Your task to perform on an android device: Open maps Image 0: 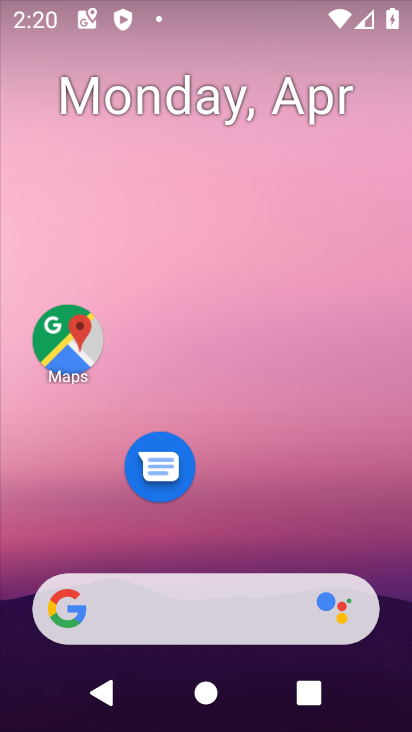
Step 0: drag from (294, 187) to (294, 58)
Your task to perform on an android device: Open maps Image 1: 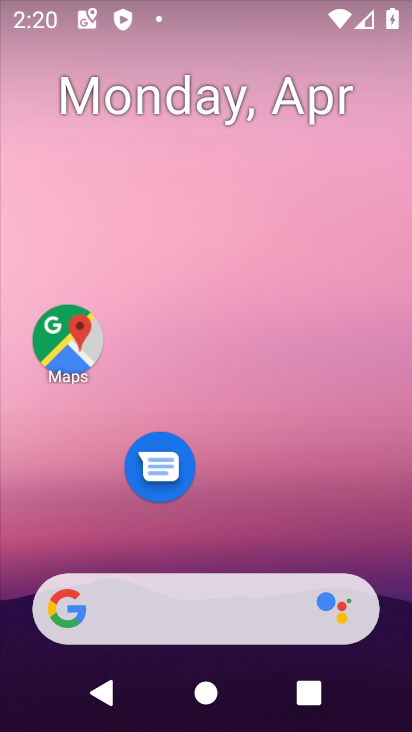
Step 1: drag from (244, 541) to (244, 28)
Your task to perform on an android device: Open maps Image 2: 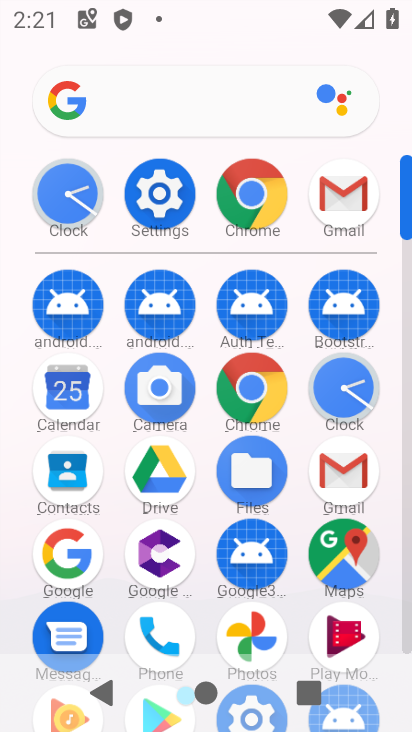
Step 2: click (370, 541)
Your task to perform on an android device: Open maps Image 3: 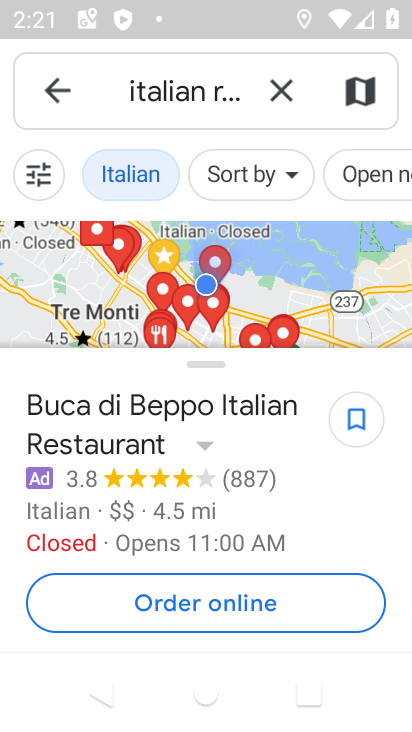
Step 3: click (56, 98)
Your task to perform on an android device: Open maps Image 4: 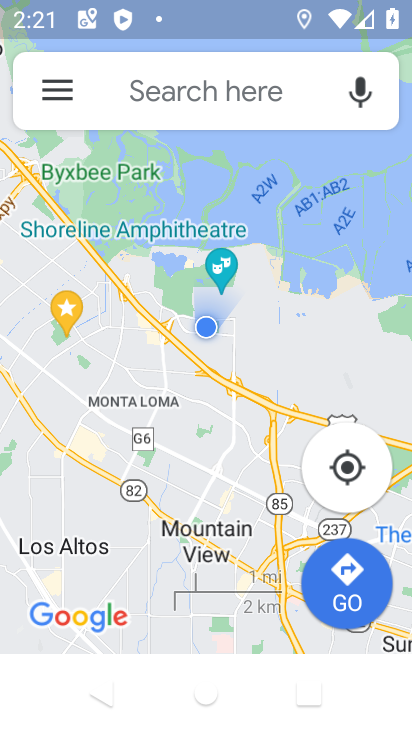
Step 4: task complete